Your task to perform on an android device: Search for lenovo thinkpad on bestbuy, select the first entry, and add it to the cart. Image 0: 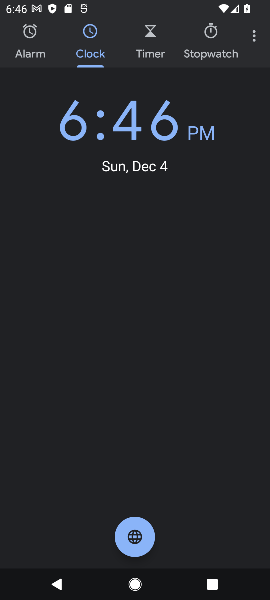
Step 0: task complete